Your task to perform on an android device: Open accessibility settings Image 0: 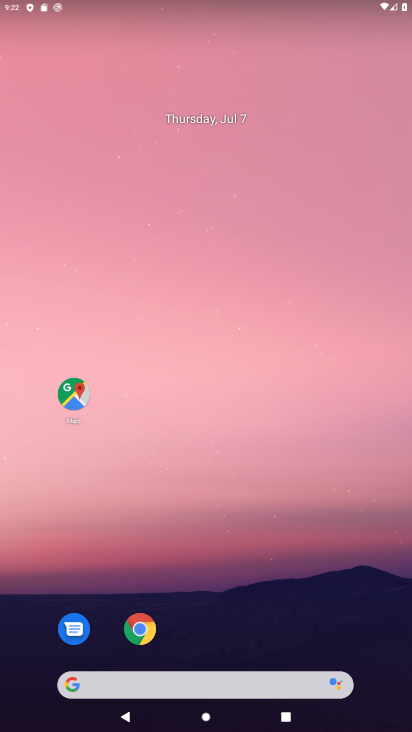
Step 0: click (360, 620)
Your task to perform on an android device: Open accessibility settings Image 1: 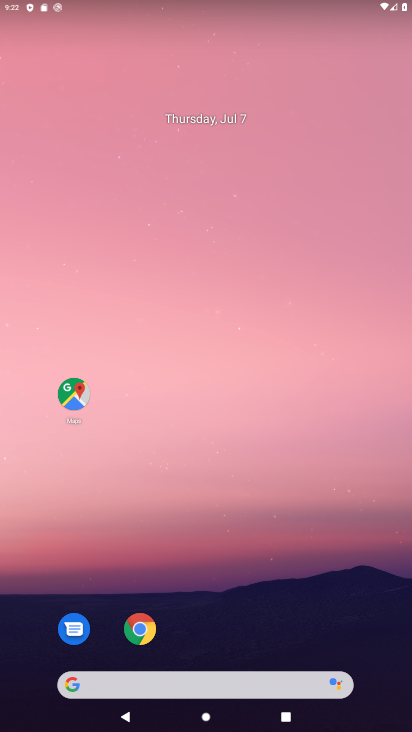
Step 1: drag from (300, 628) to (370, 122)
Your task to perform on an android device: Open accessibility settings Image 2: 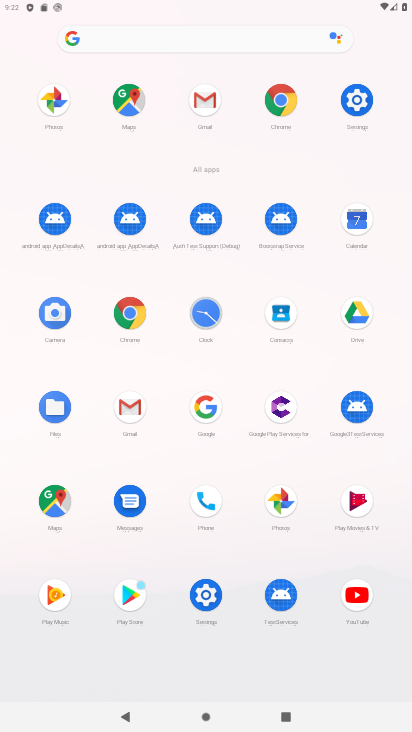
Step 2: click (196, 596)
Your task to perform on an android device: Open accessibility settings Image 3: 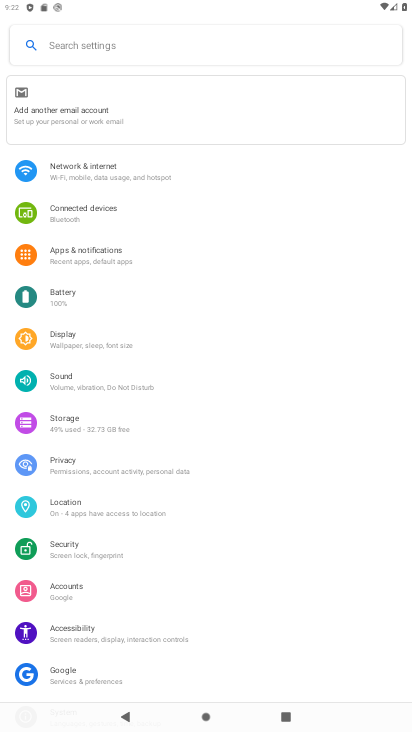
Step 3: drag from (117, 621) to (227, 211)
Your task to perform on an android device: Open accessibility settings Image 4: 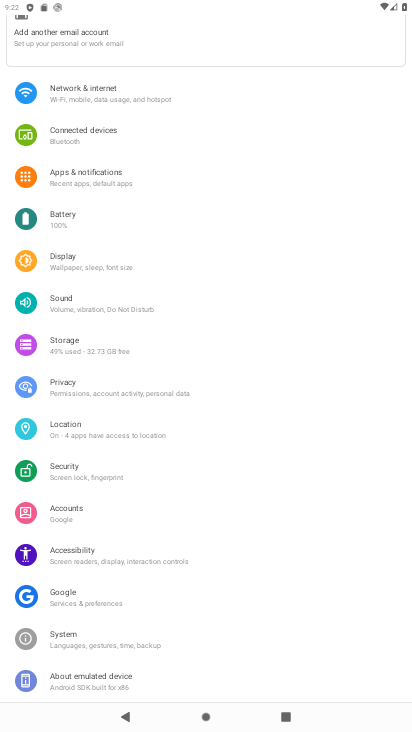
Step 4: click (113, 557)
Your task to perform on an android device: Open accessibility settings Image 5: 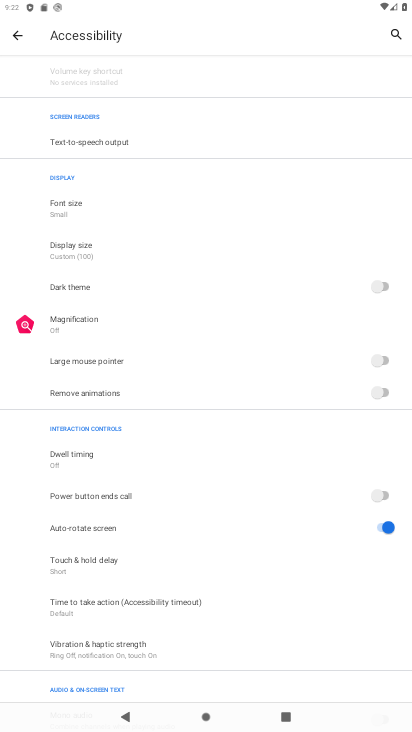
Step 5: task complete